Your task to perform on an android device: open app "Duolingo: language lessons" Image 0: 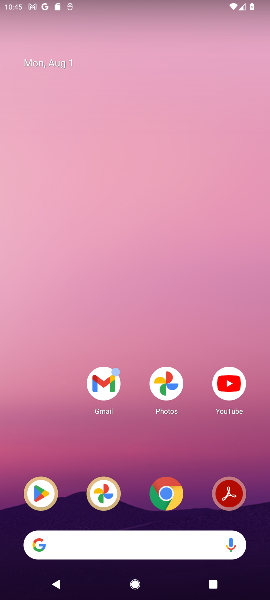
Step 0: drag from (73, 526) to (89, 280)
Your task to perform on an android device: open app "Duolingo: language lessons" Image 1: 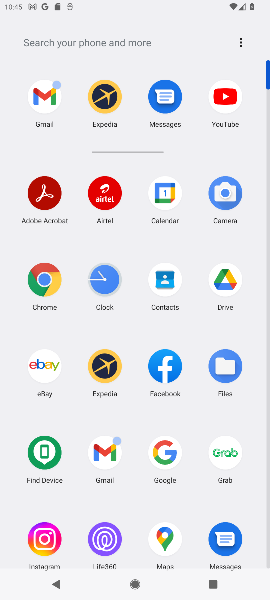
Step 1: task complete